Your task to perform on an android device: Search for 35 best books of all time Image 0: 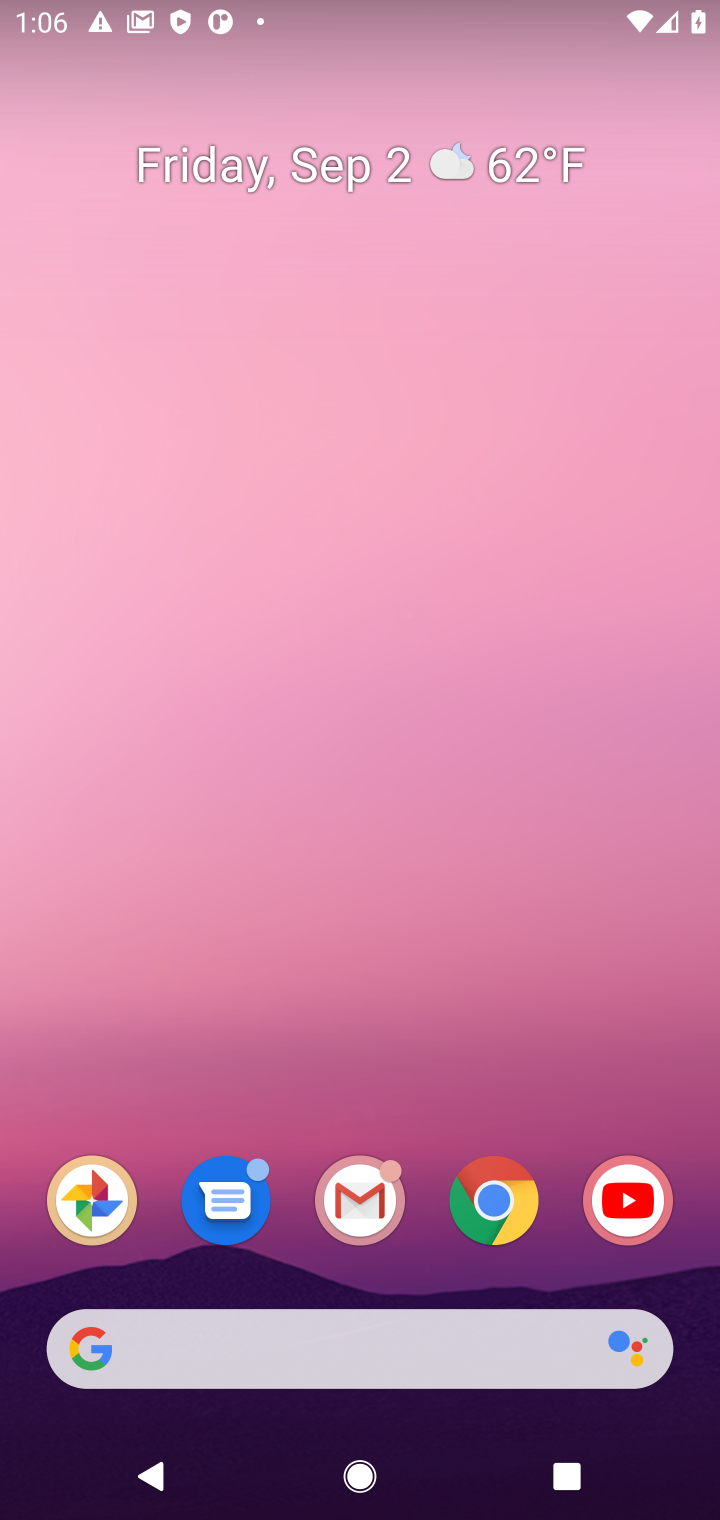
Step 0: click (491, 1220)
Your task to perform on an android device: Search for 35 best books of all time Image 1: 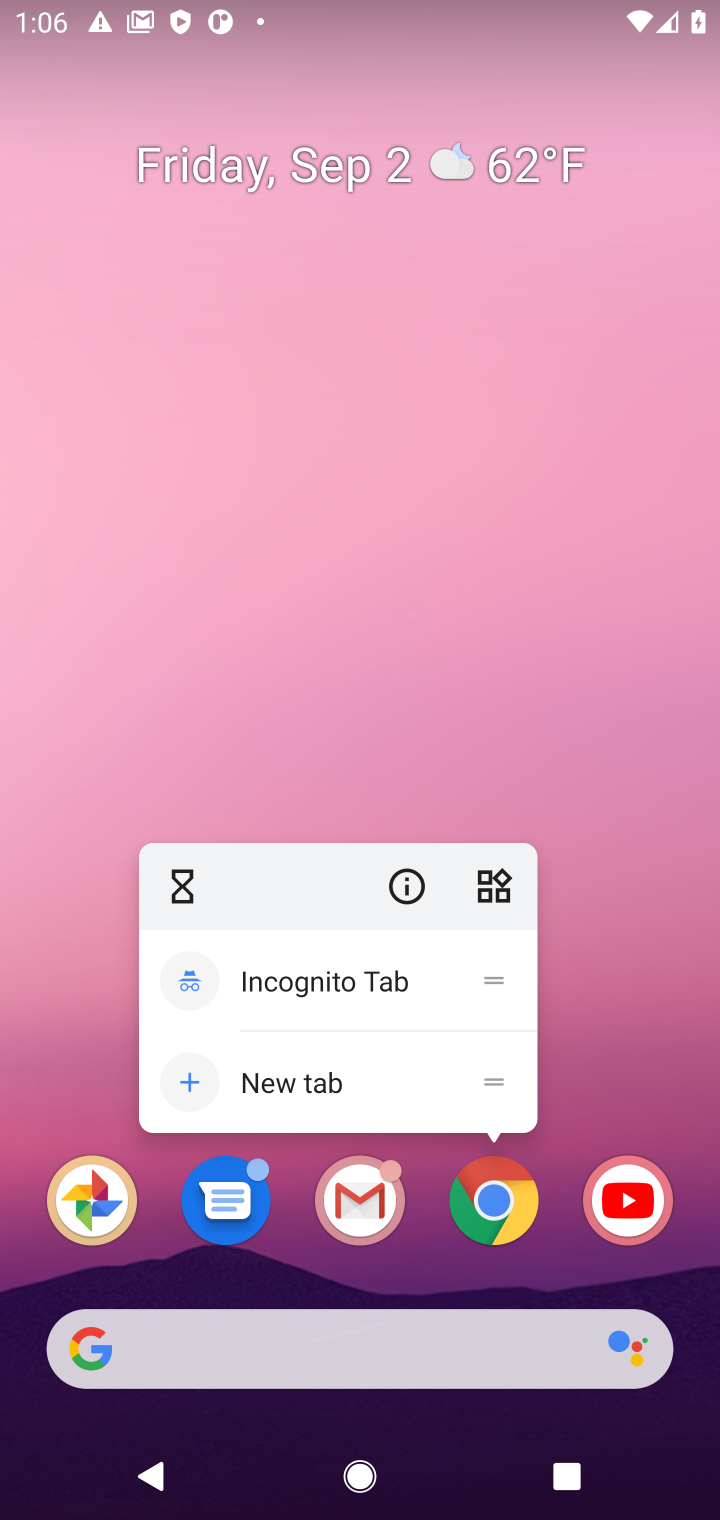
Step 1: click (505, 1170)
Your task to perform on an android device: Search for 35 best books of all time Image 2: 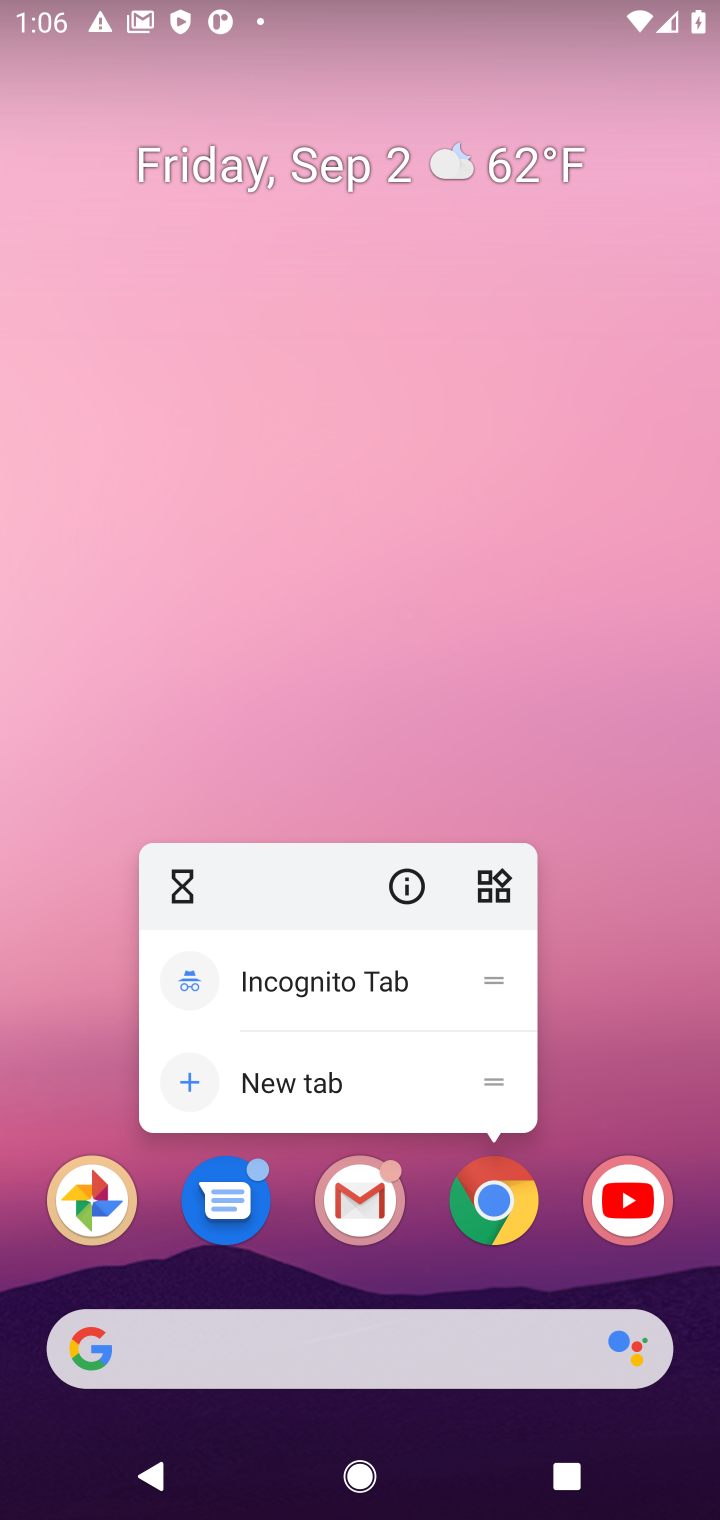
Step 2: click (505, 1189)
Your task to perform on an android device: Search for 35 best books of all time Image 3: 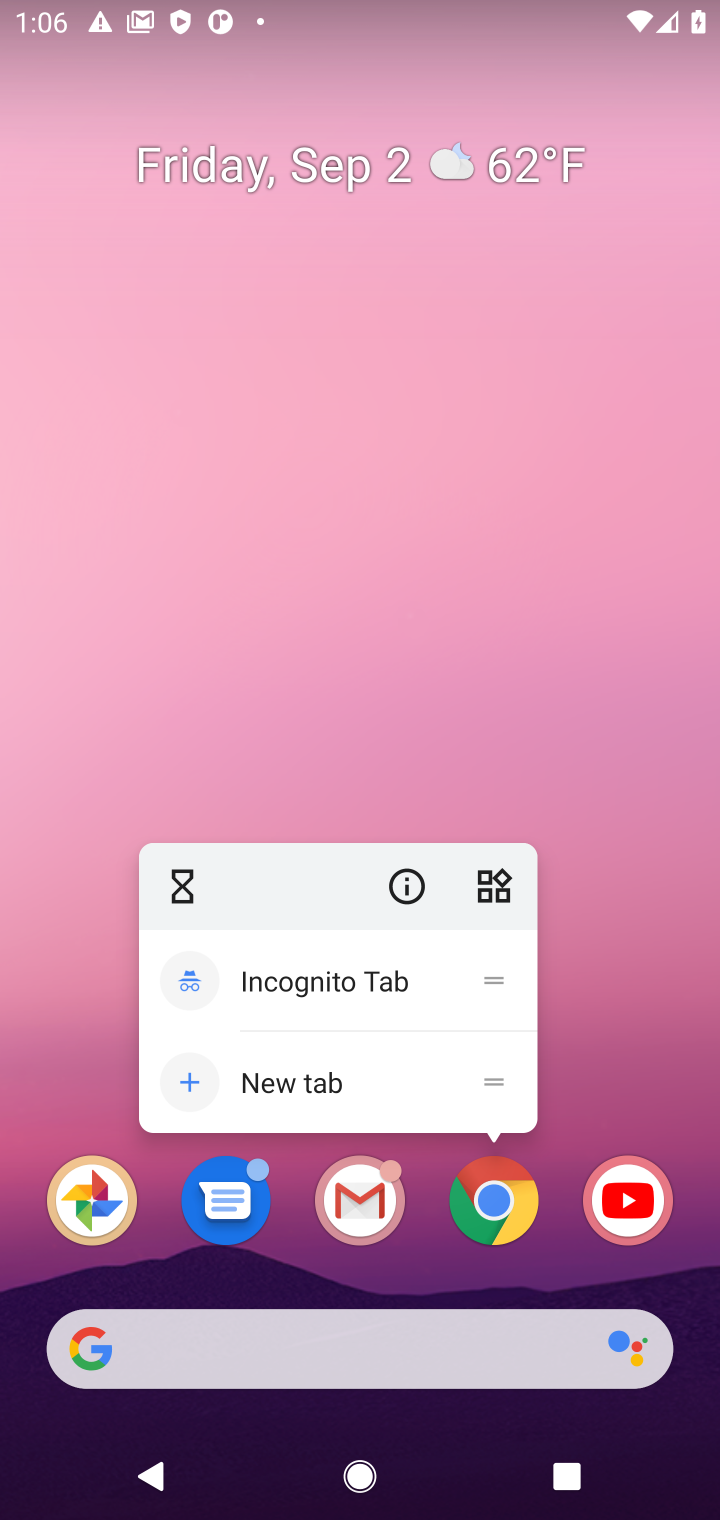
Step 3: click (505, 1189)
Your task to perform on an android device: Search for 35 best books of all time Image 4: 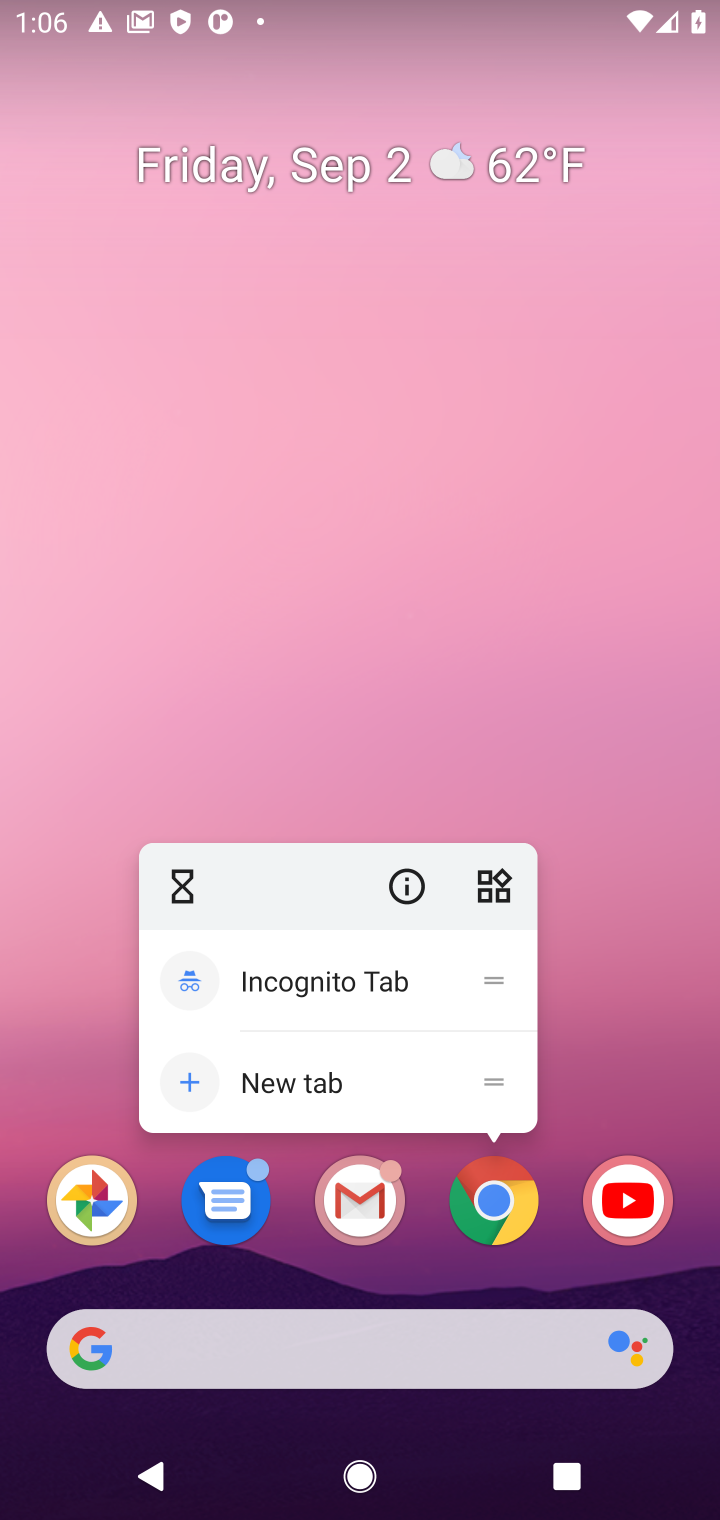
Step 4: click (496, 1200)
Your task to perform on an android device: Search for 35 best books of all time Image 5: 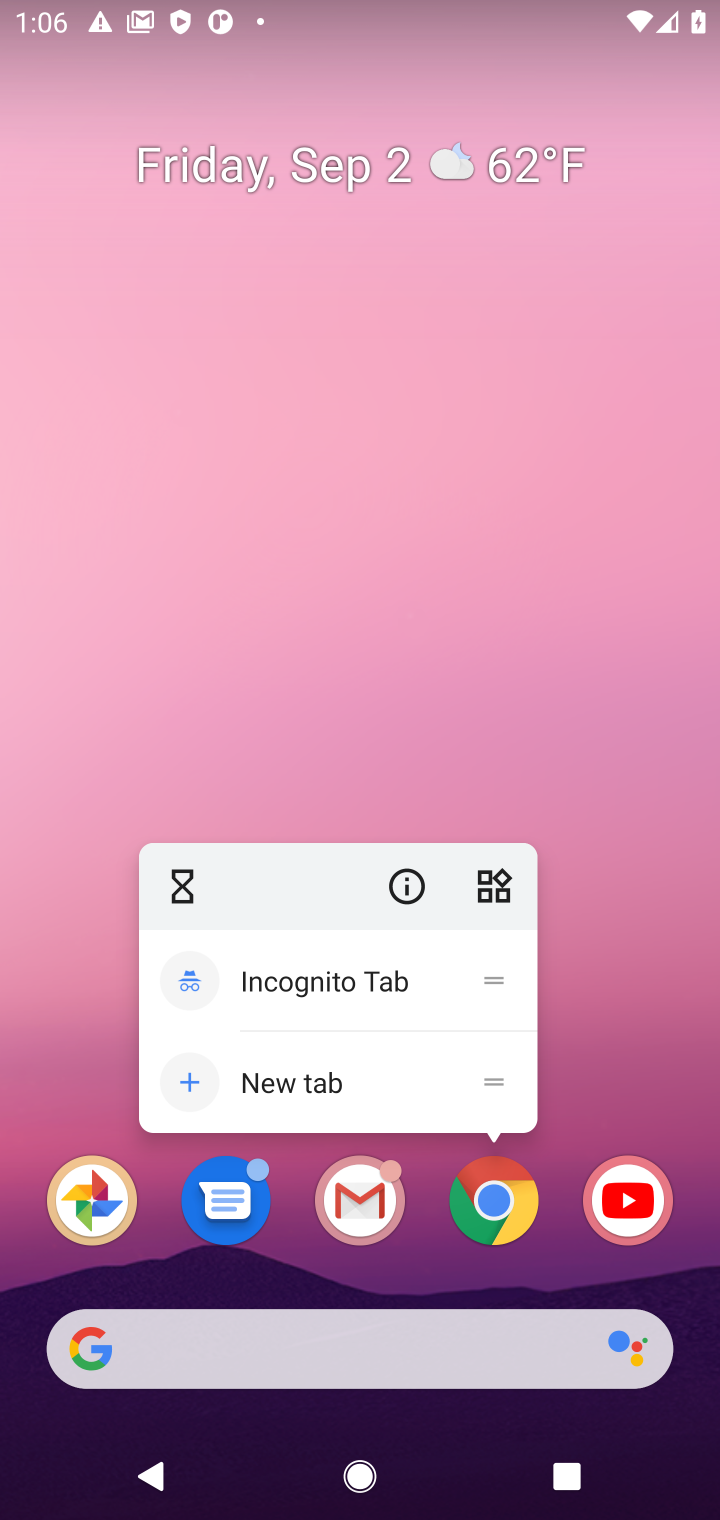
Step 5: click (496, 1202)
Your task to perform on an android device: Search for 35 best books of all time Image 6: 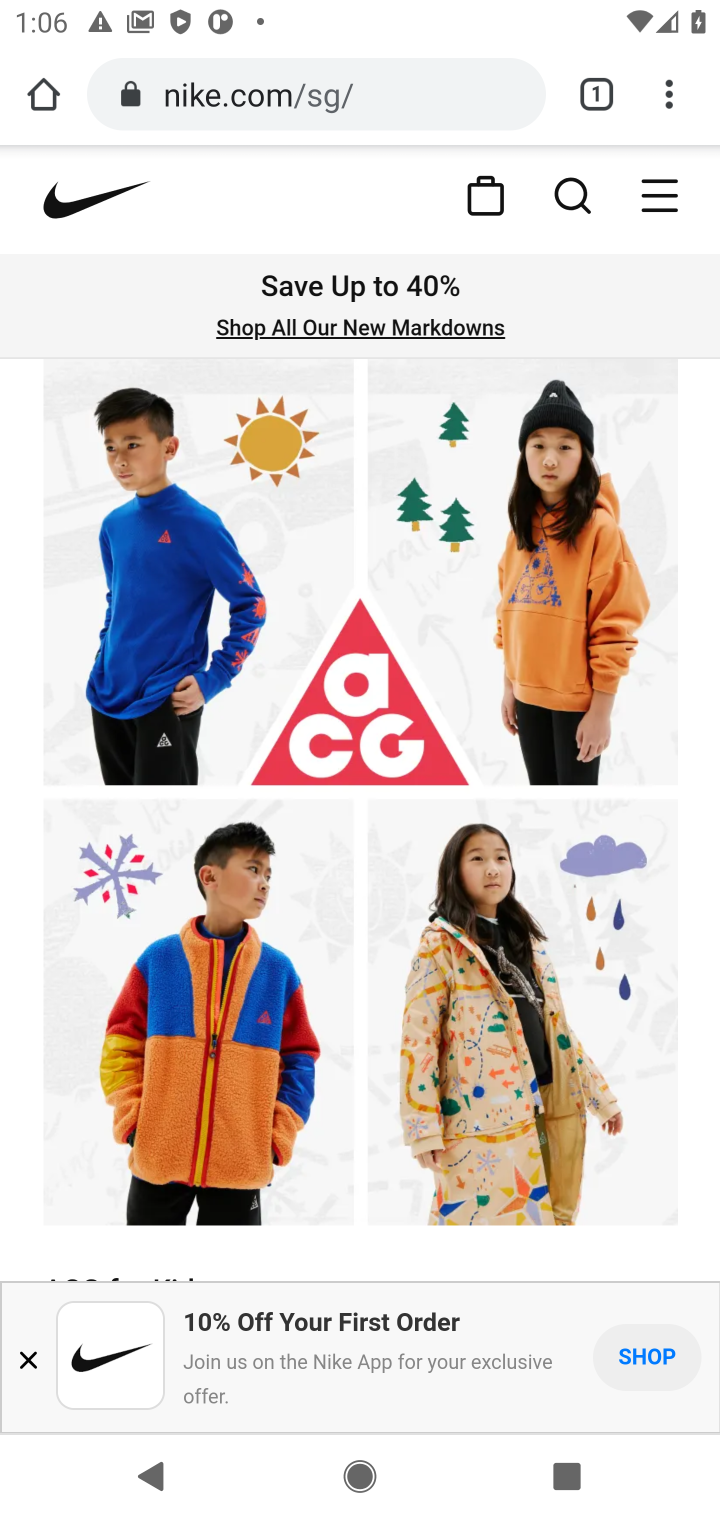
Step 6: click (356, 92)
Your task to perform on an android device: Search for 35 best books of all time Image 7: 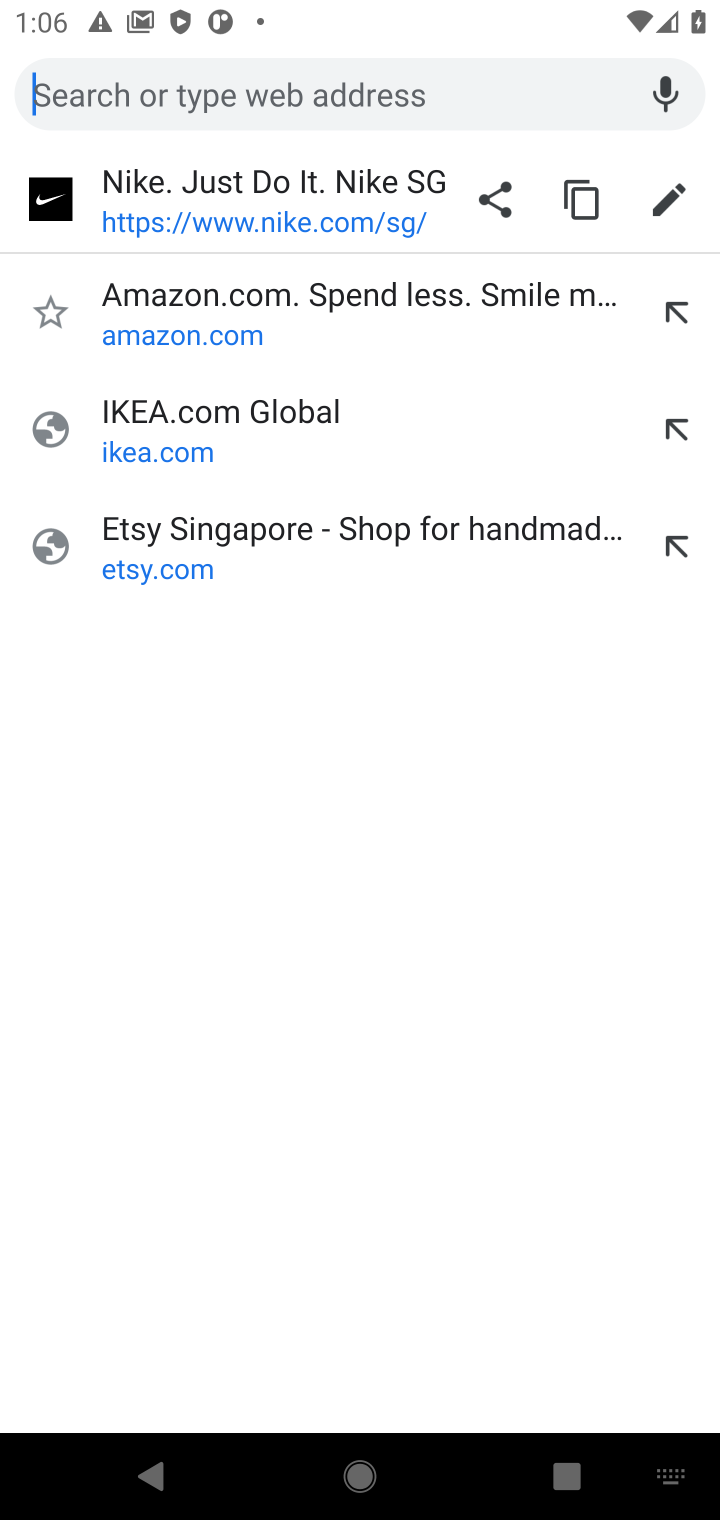
Step 7: type "35 best books of all time"
Your task to perform on an android device: Search for 35 best books of all time Image 8: 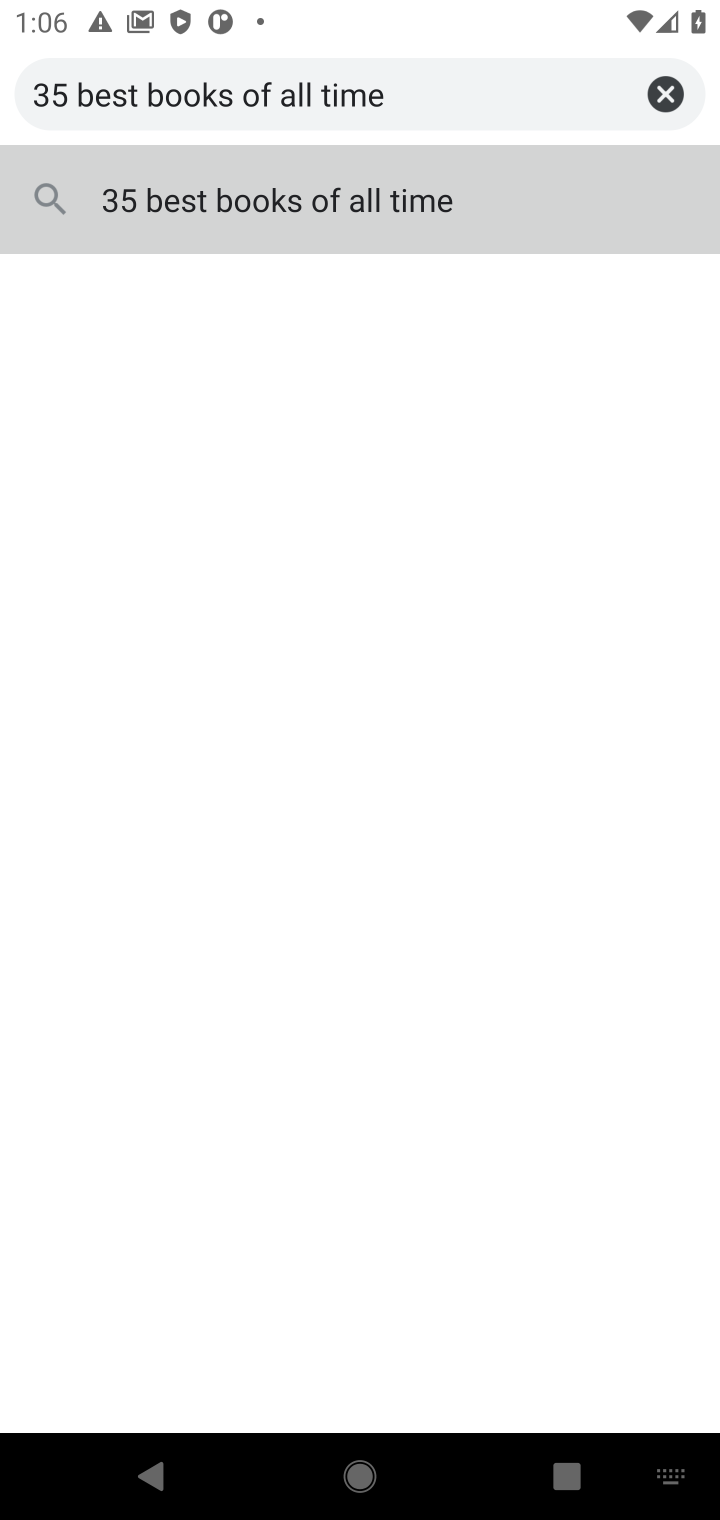
Step 8: press enter
Your task to perform on an android device: Search for 35 best books of all time Image 9: 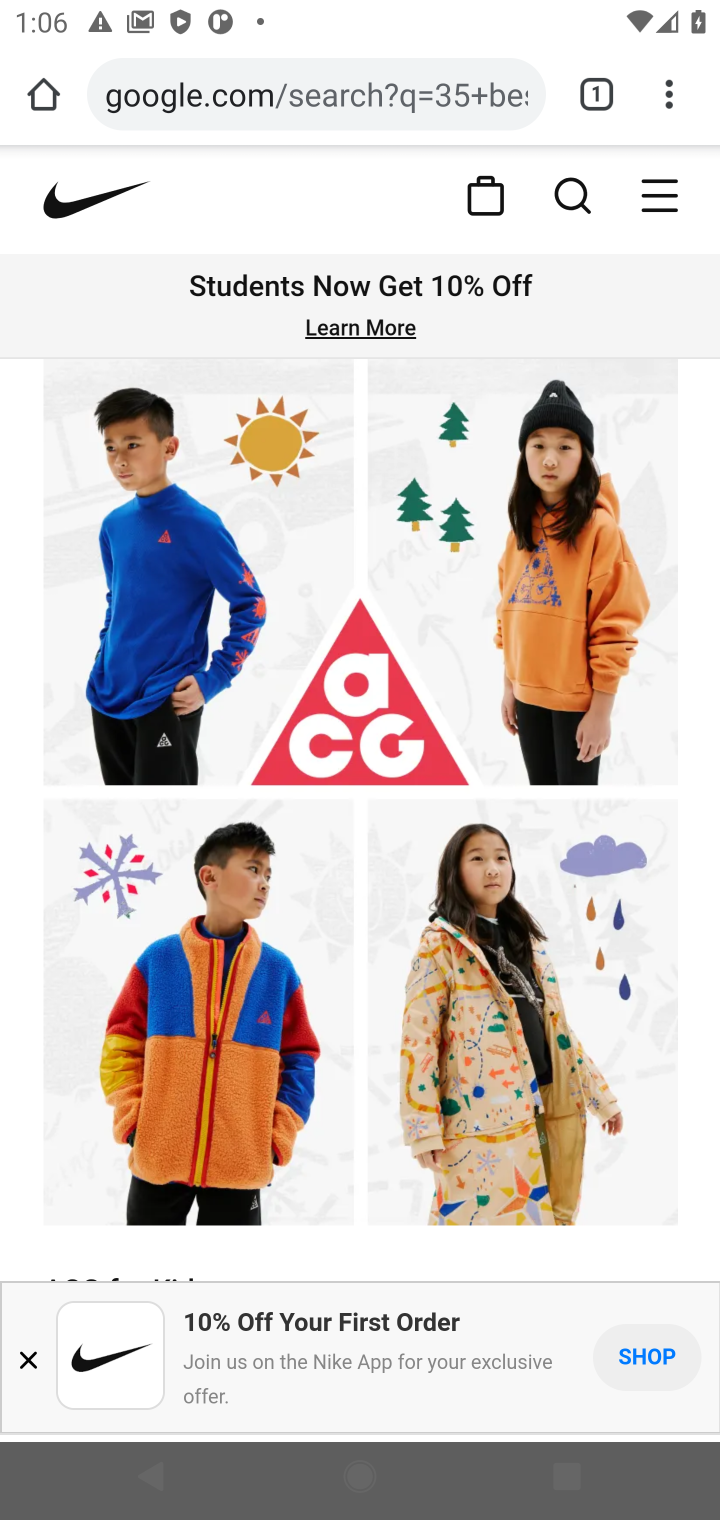
Step 9: click (369, 210)
Your task to perform on an android device: Search for 35 best books of all time Image 10: 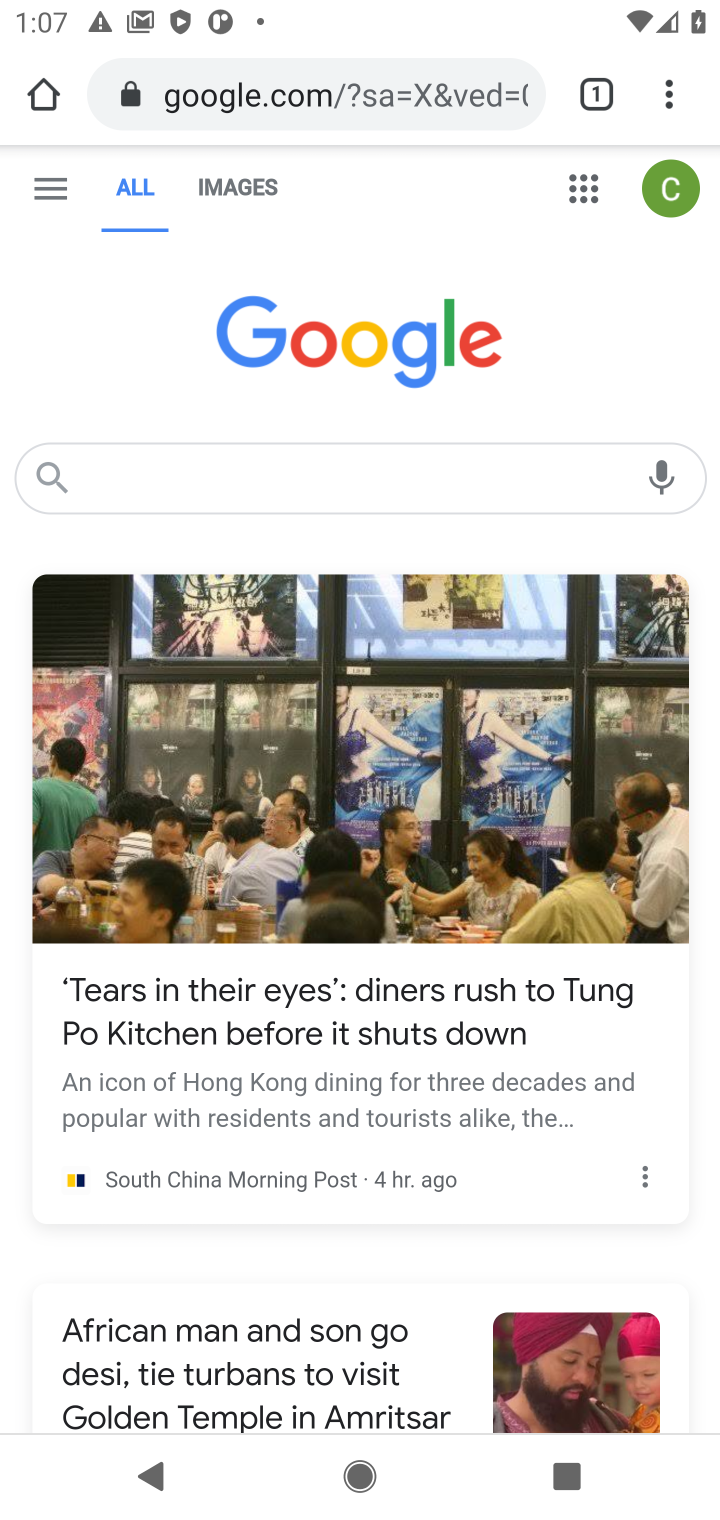
Step 10: press back button
Your task to perform on an android device: Search for 35 best books of all time Image 11: 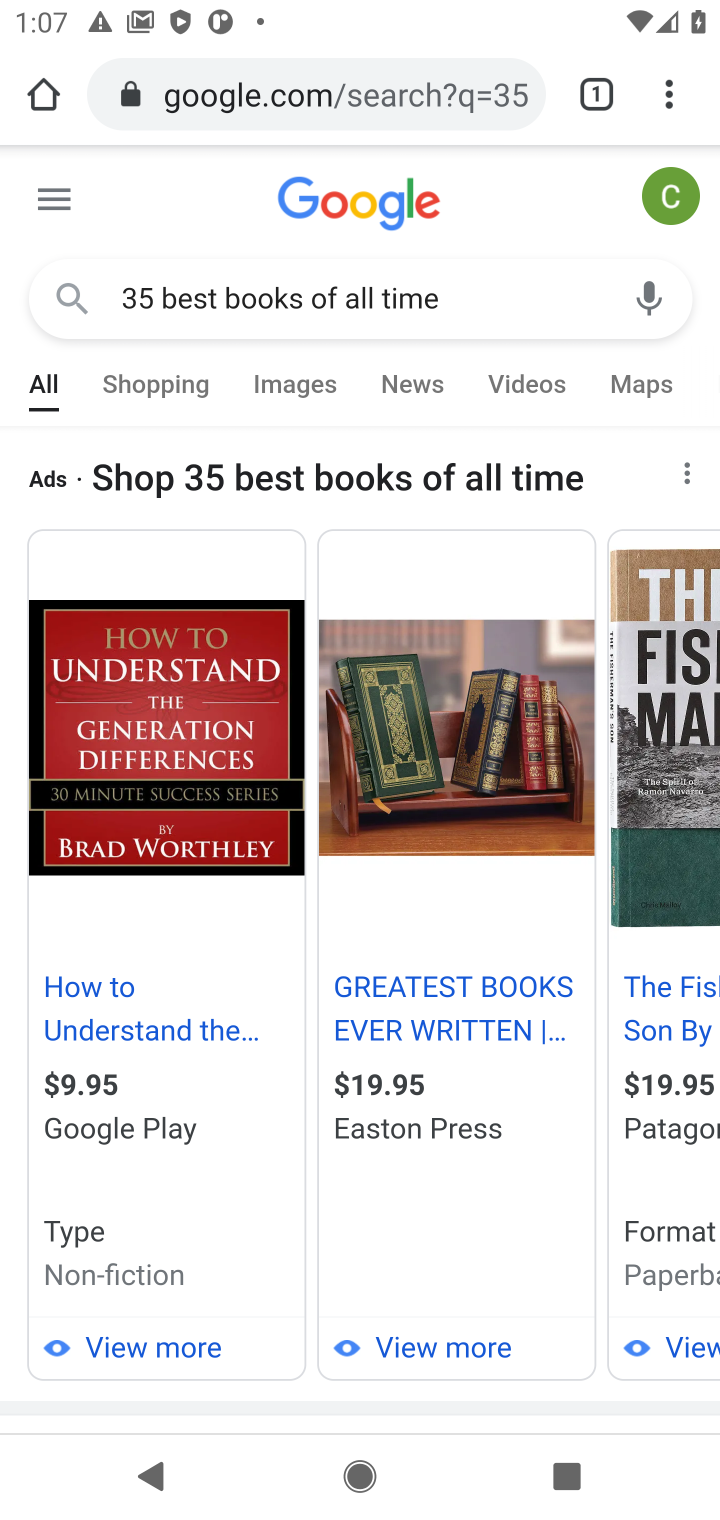
Step 11: drag from (447, 540) to (455, 464)
Your task to perform on an android device: Search for 35 best books of all time Image 12: 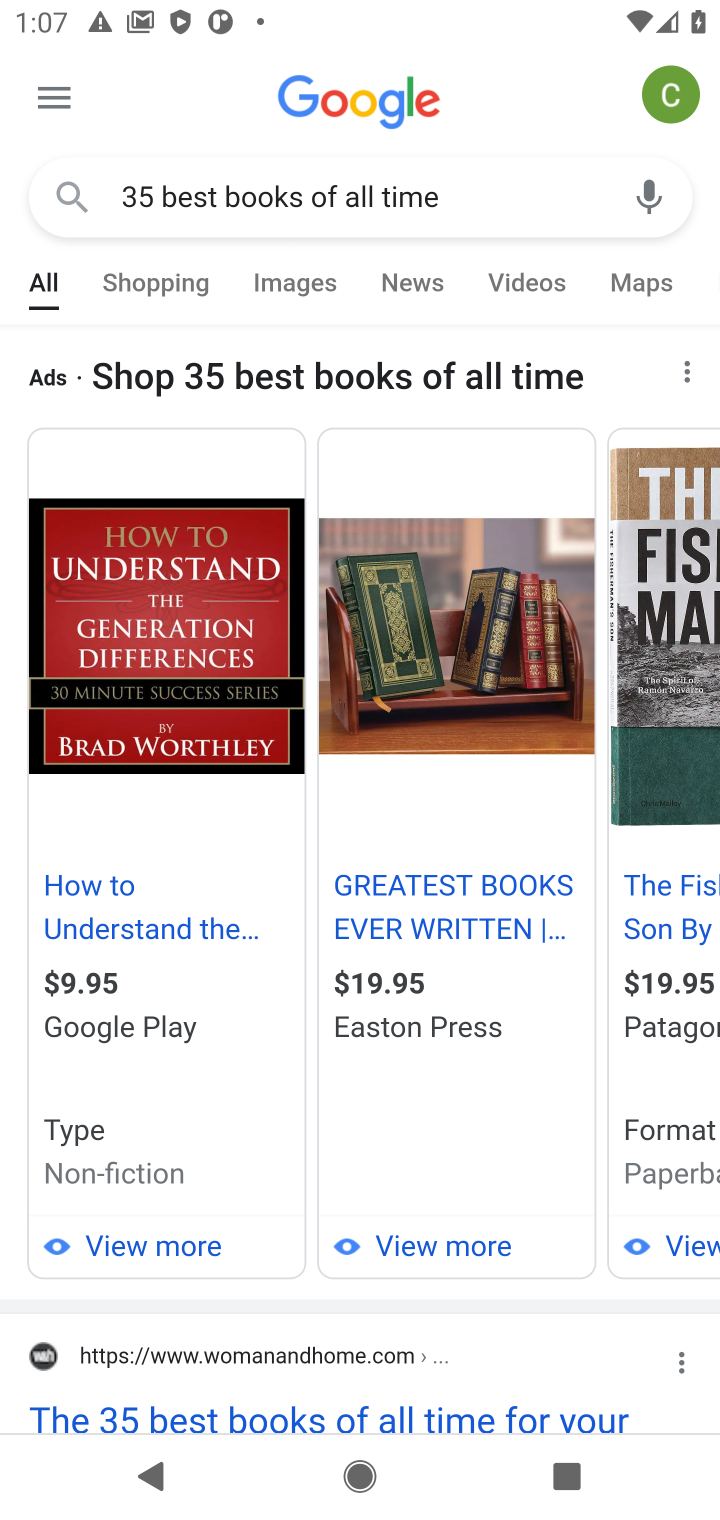
Step 12: drag from (495, 587) to (554, 276)
Your task to perform on an android device: Search for 35 best books of all time Image 13: 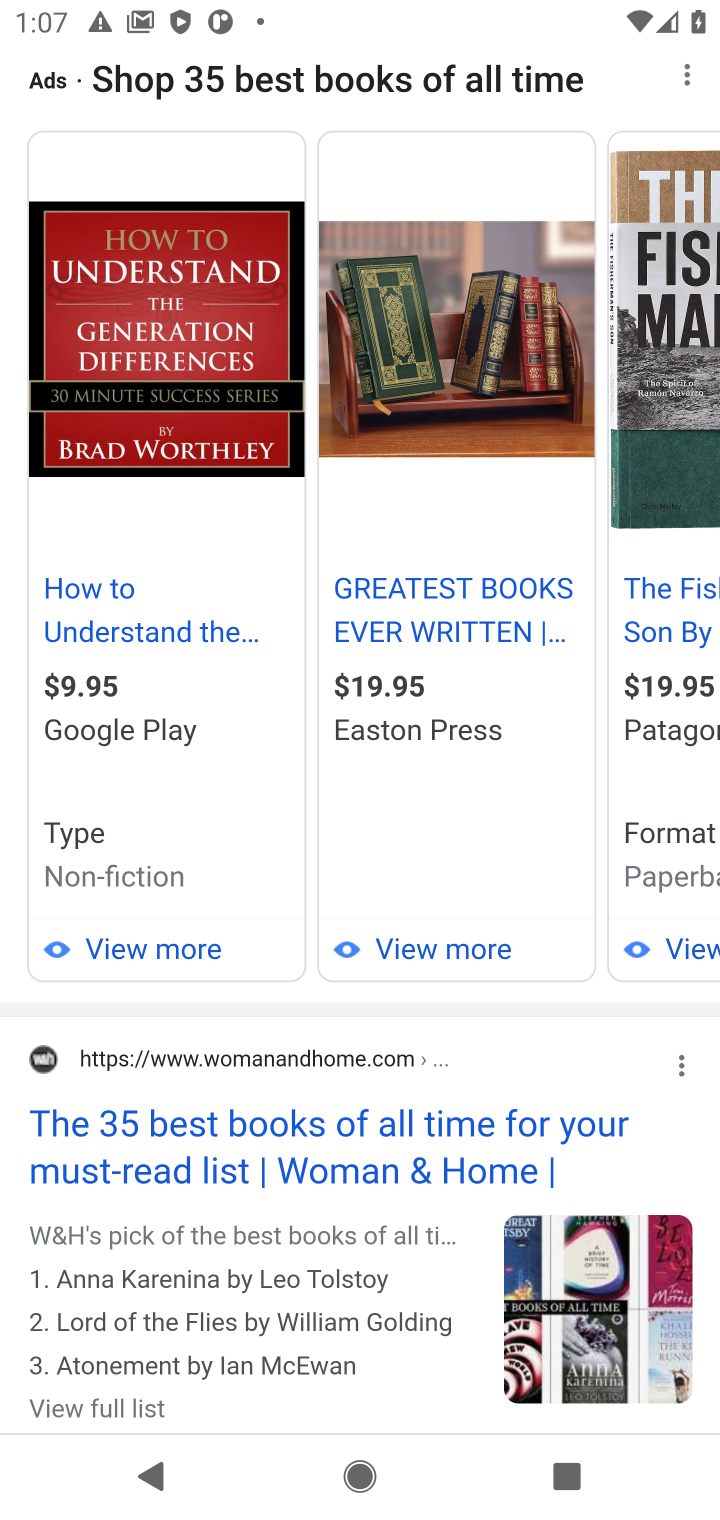
Step 13: click (336, 1137)
Your task to perform on an android device: Search for 35 best books of all time Image 14: 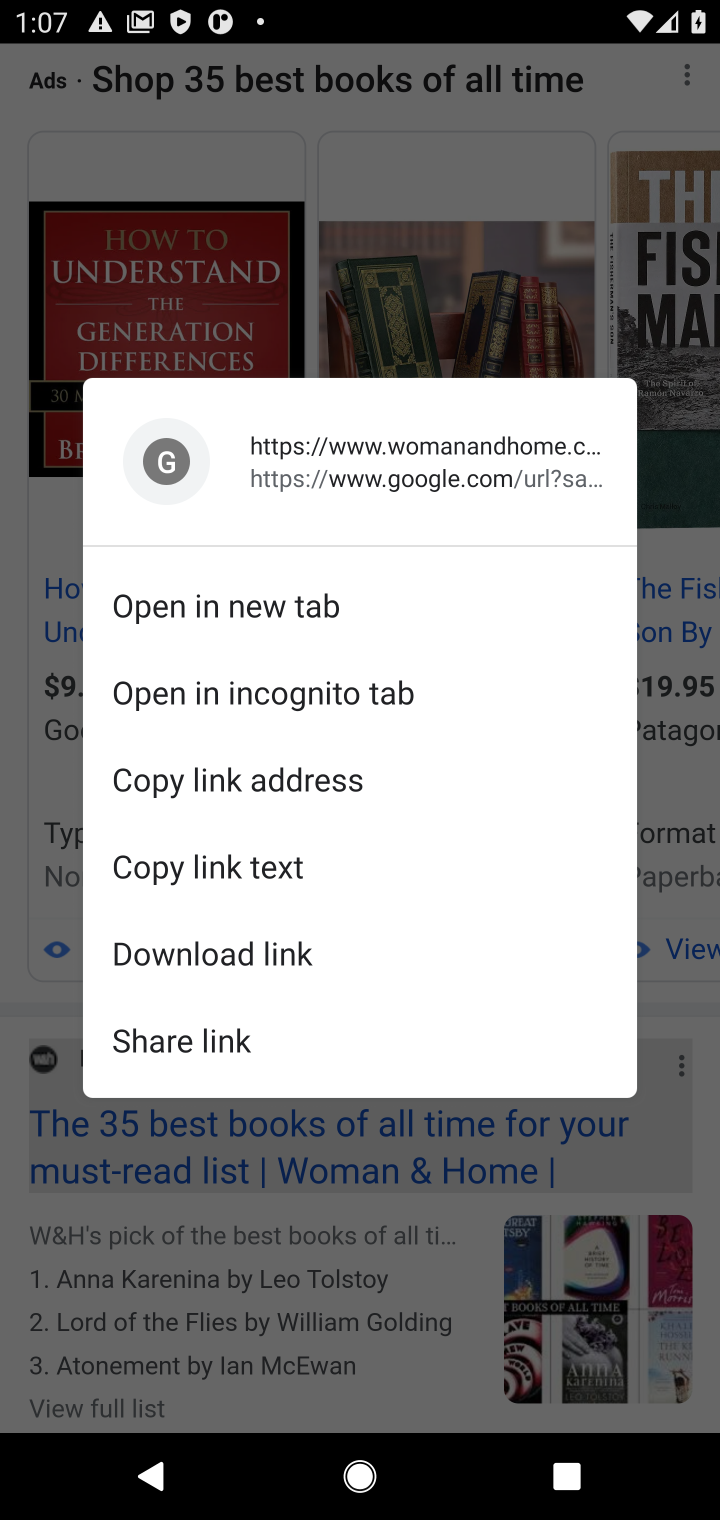
Step 14: drag from (520, 766) to (573, 250)
Your task to perform on an android device: Search for 35 best books of all time Image 15: 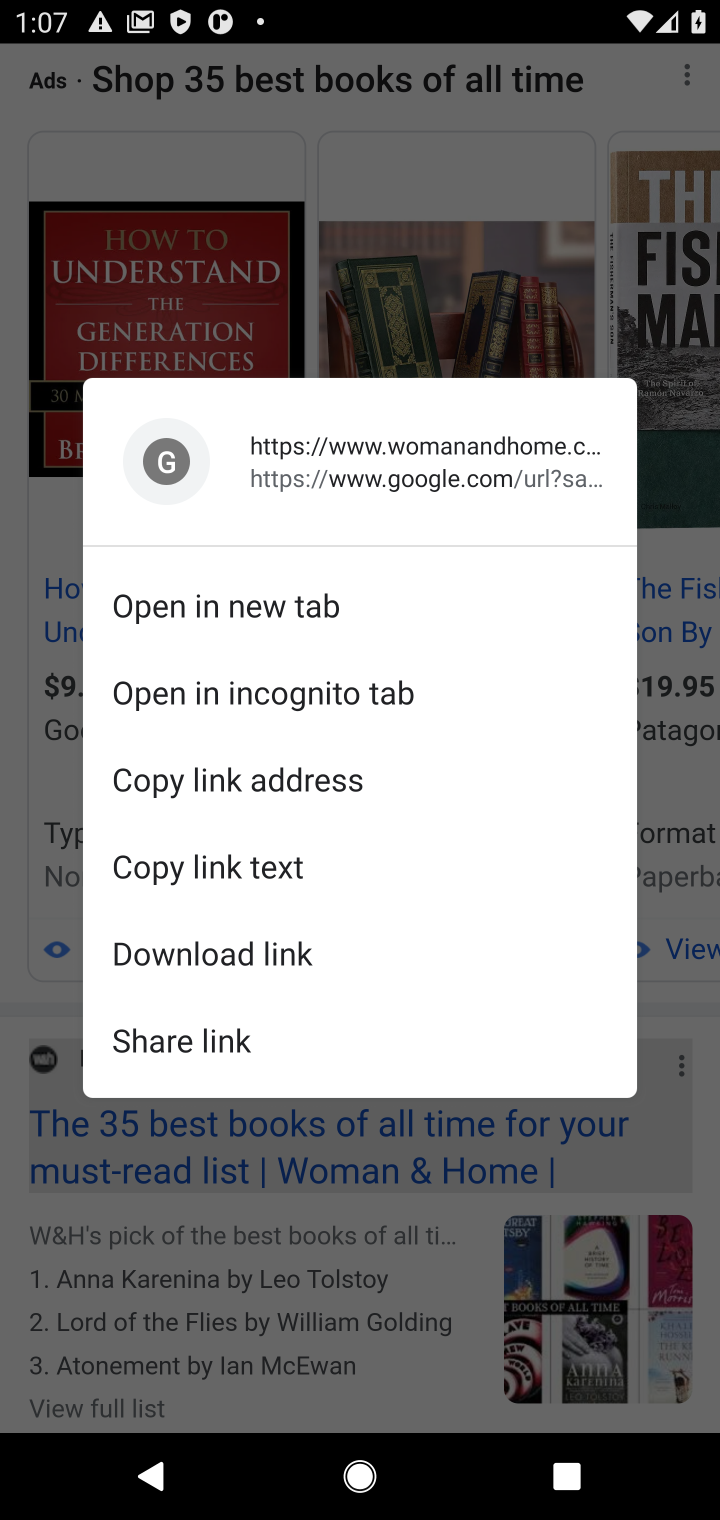
Step 15: click (424, 1258)
Your task to perform on an android device: Search for 35 best books of all time Image 16: 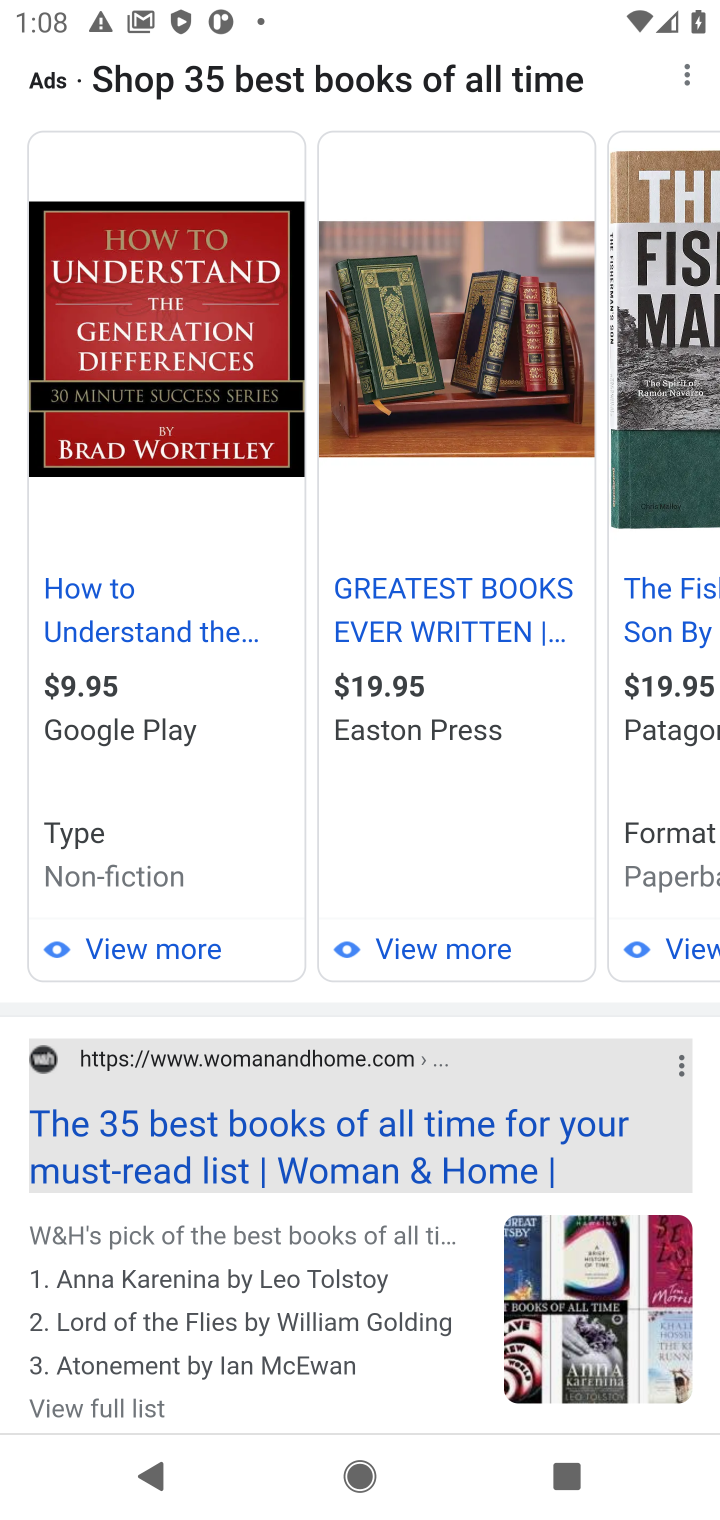
Step 16: click (270, 1109)
Your task to perform on an android device: Search for 35 best books of all time Image 17: 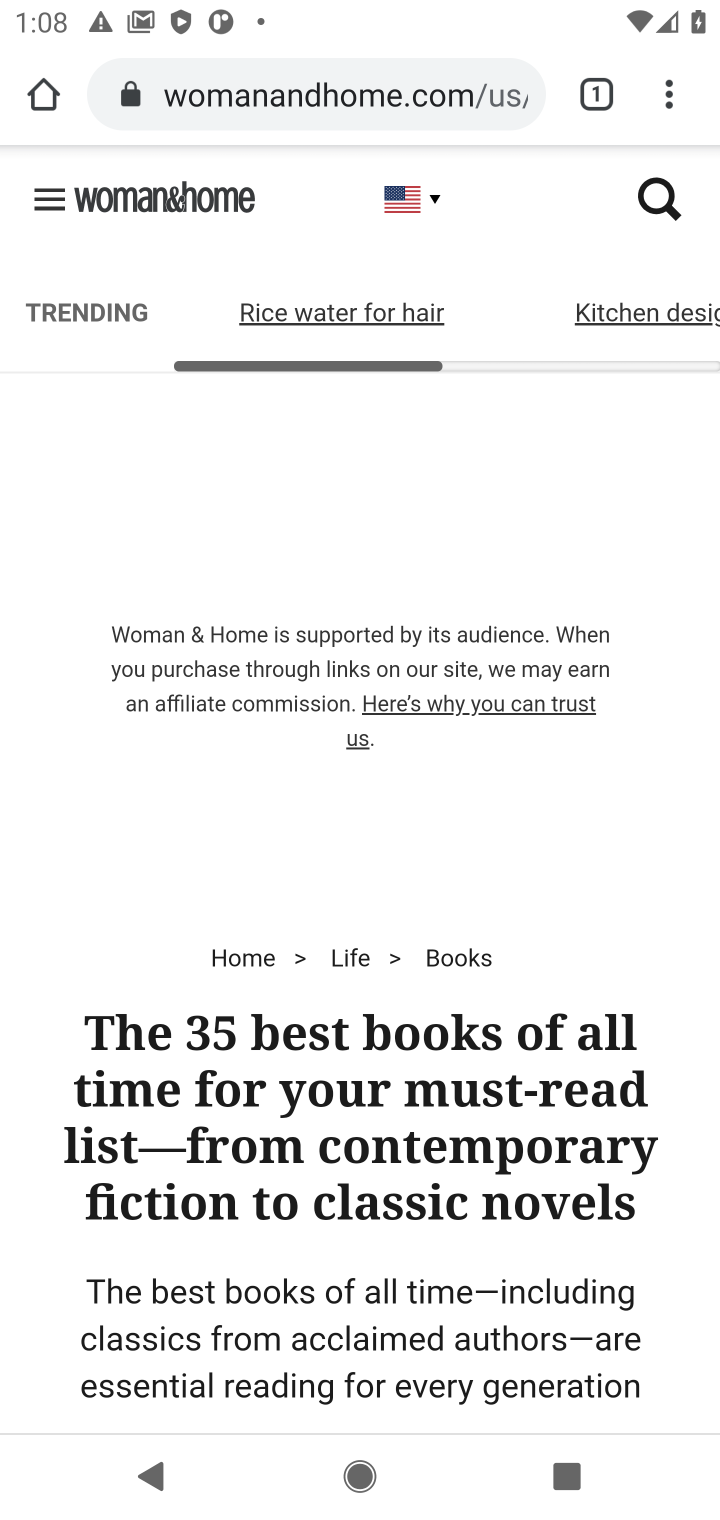
Step 17: task complete